Your task to perform on an android device: Is it going to rain tomorrow? Image 0: 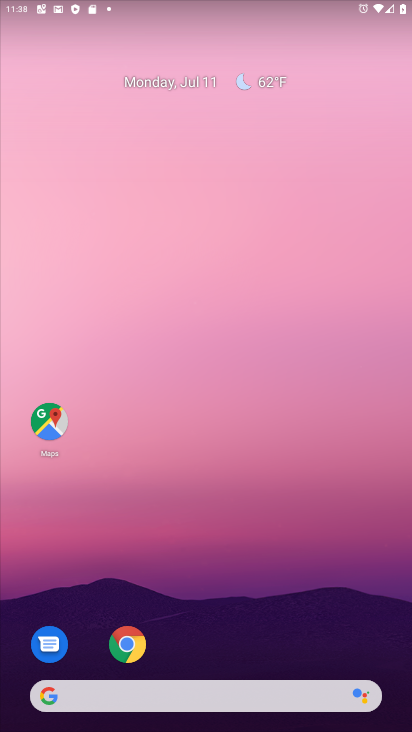
Step 0: click (223, 677)
Your task to perform on an android device: Is it going to rain tomorrow? Image 1: 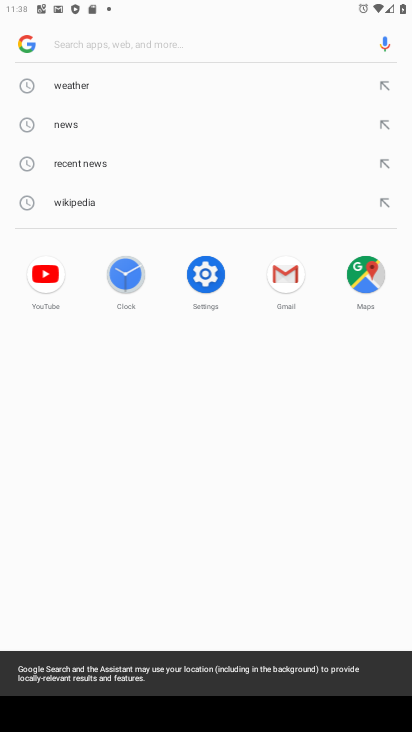
Step 1: click (78, 79)
Your task to perform on an android device: Is it going to rain tomorrow? Image 2: 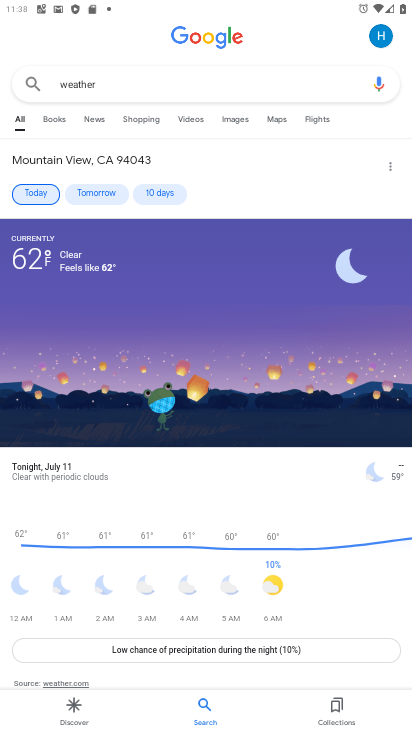
Step 2: click (79, 194)
Your task to perform on an android device: Is it going to rain tomorrow? Image 3: 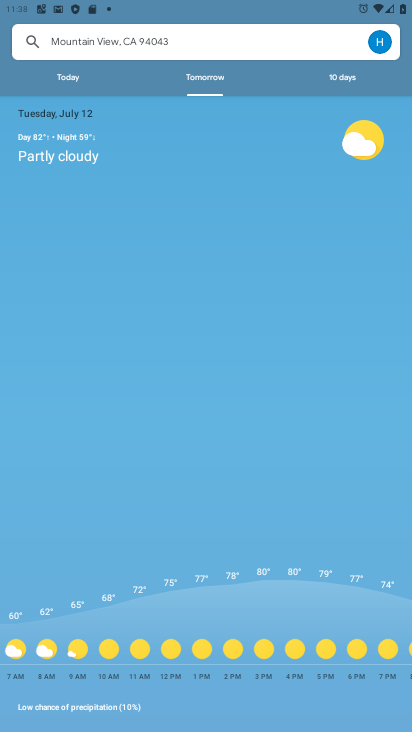
Step 3: task complete